Your task to perform on an android device: change the clock display to show seconds Image 0: 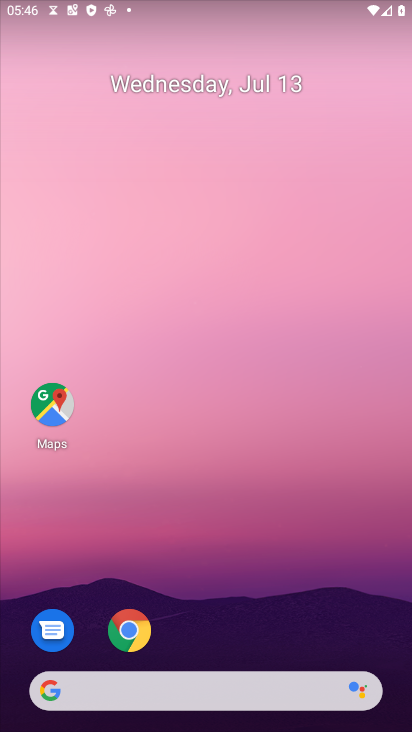
Step 0: drag from (301, 678) to (313, 49)
Your task to perform on an android device: change the clock display to show seconds Image 1: 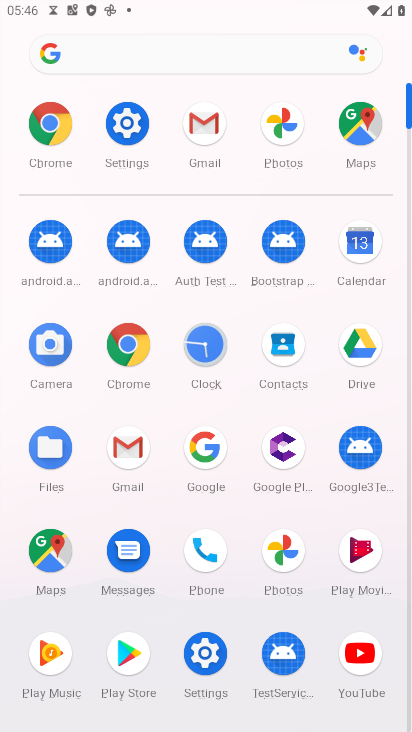
Step 1: click (202, 321)
Your task to perform on an android device: change the clock display to show seconds Image 2: 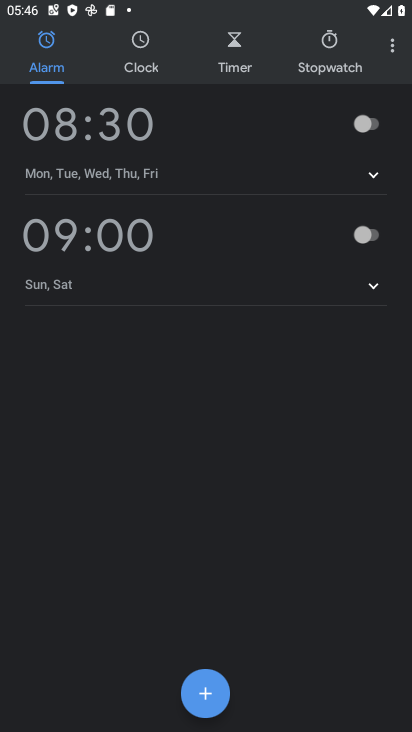
Step 2: drag from (391, 45) to (300, 93)
Your task to perform on an android device: change the clock display to show seconds Image 3: 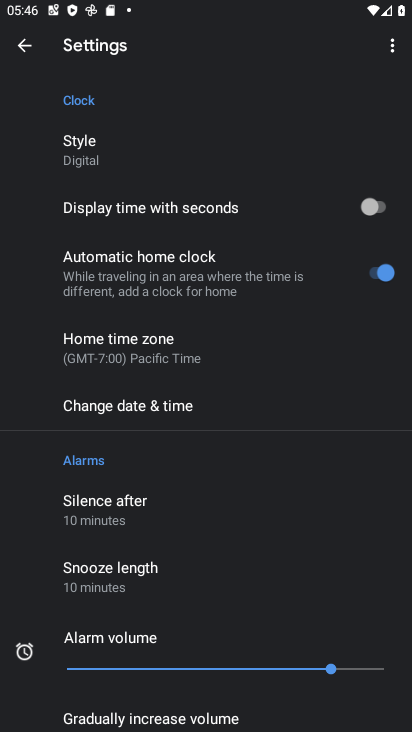
Step 3: click (377, 205)
Your task to perform on an android device: change the clock display to show seconds Image 4: 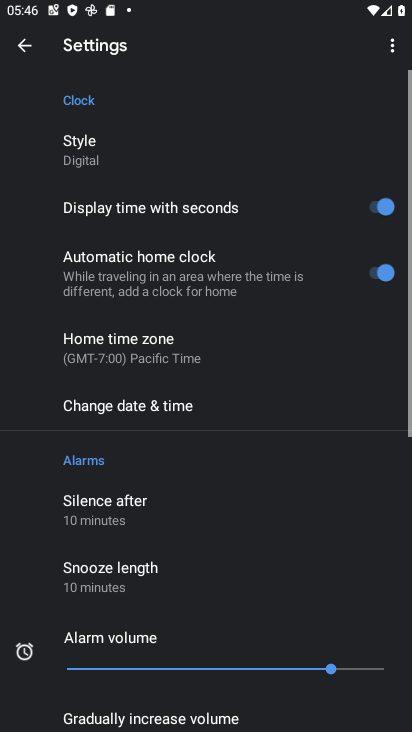
Step 4: task complete